Your task to perform on an android device: Open Amazon Image 0: 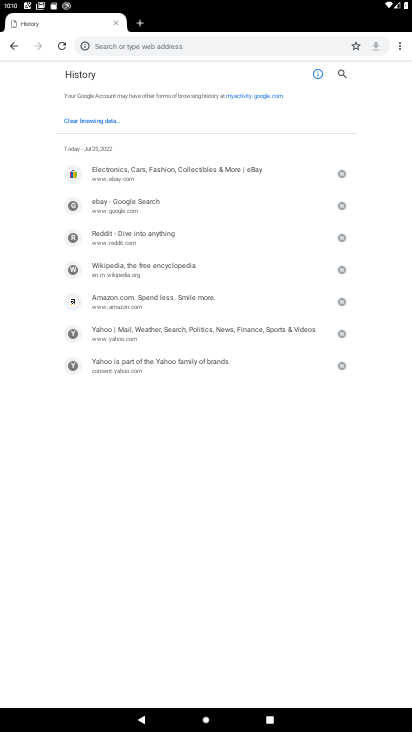
Step 0: press home button
Your task to perform on an android device: Open Amazon Image 1: 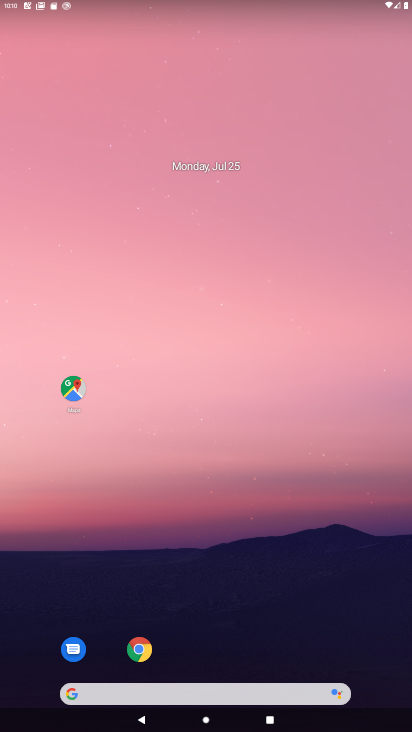
Step 1: click (139, 649)
Your task to perform on an android device: Open Amazon Image 2: 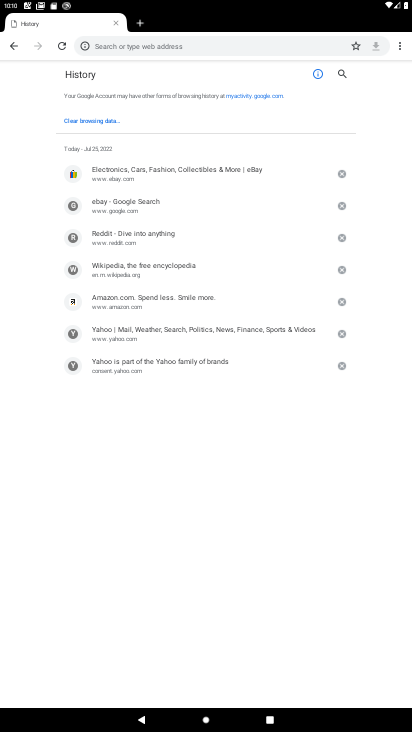
Step 2: click (136, 49)
Your task to perform on an android device: Open Amazon Image 3: 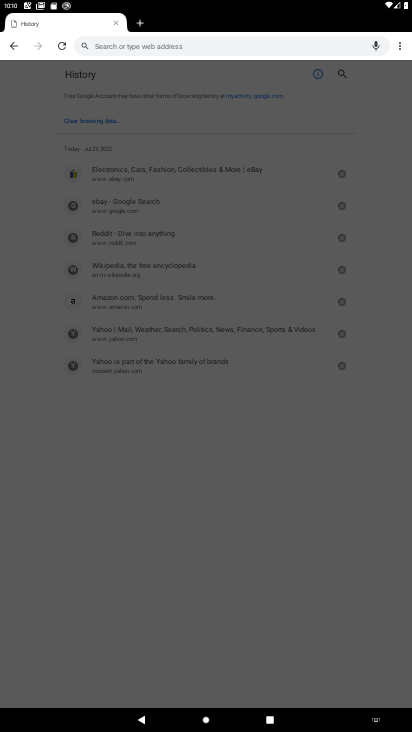
Step 3: type "amazon"
Your task to perform on an android device: Open Amazon Image 4: 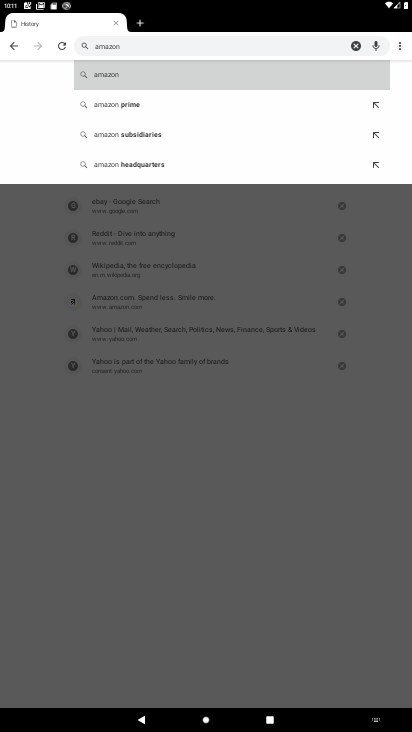
Step 4: click (107, 75)
Your task to perform on an android device: Open Amazon Image 5: 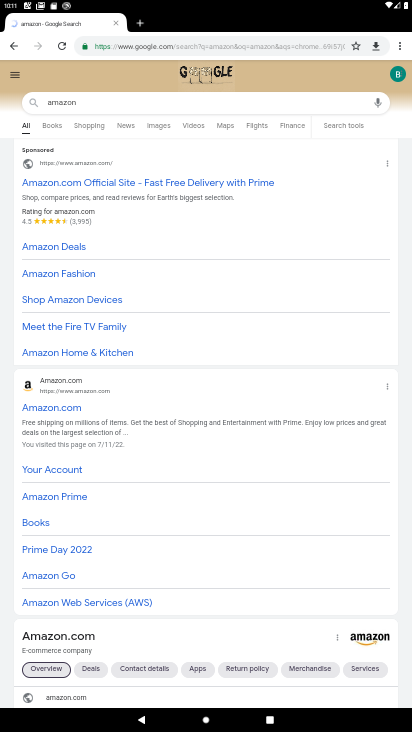
Step 5: click (58, 191)
Your task to perform on an android device: Open Amazon Image 6: 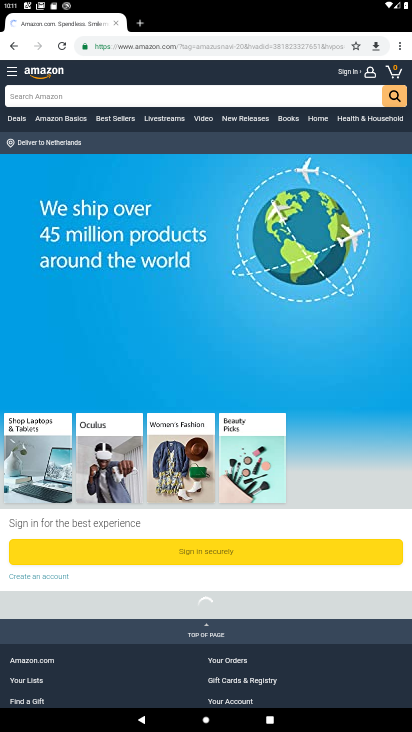
Step 6: task complete